Your task to perform on an android device: open a new tab in the chrome app Image 0: 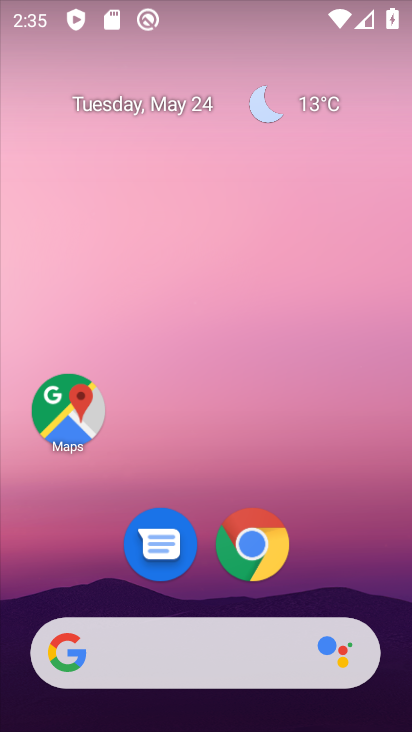
Step 0: drag from (345, 566) to (354, 13)
Your task to perform on an android device: open a new tab in the chrome app Image 1: 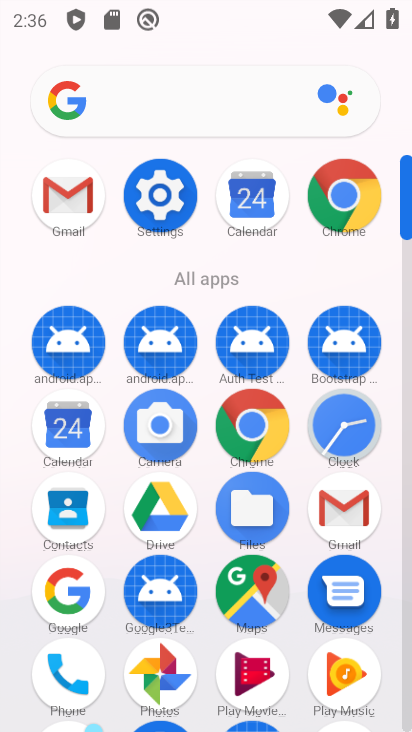
Step 1: click (349, 198)
Your task to perform on an android device: open a new tab in the chrome app Image 2: 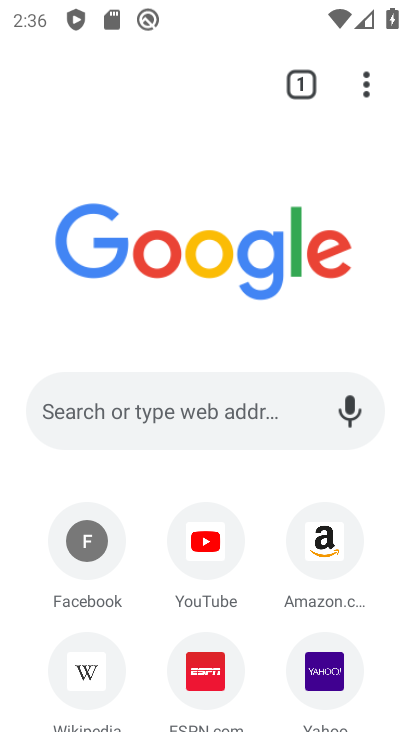
Step 2: task complete